Your task to perform on an android device: toggle data saver in the chrome app Image 0: 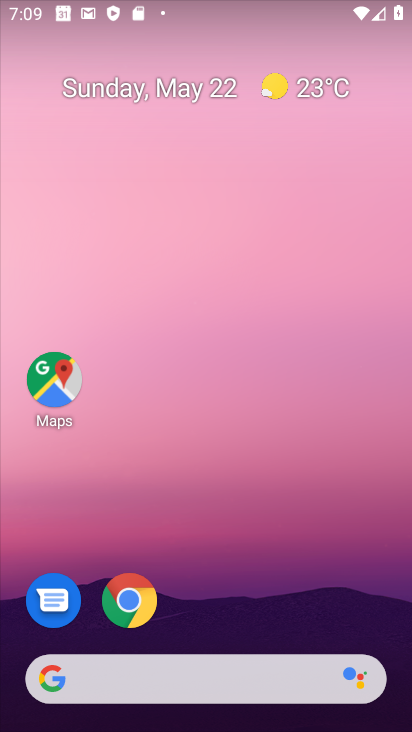
Step 0: drag from (386, 612) to (301, 10)
Your task to perform on an android device: toggle data saver in the chrome app Image 1: 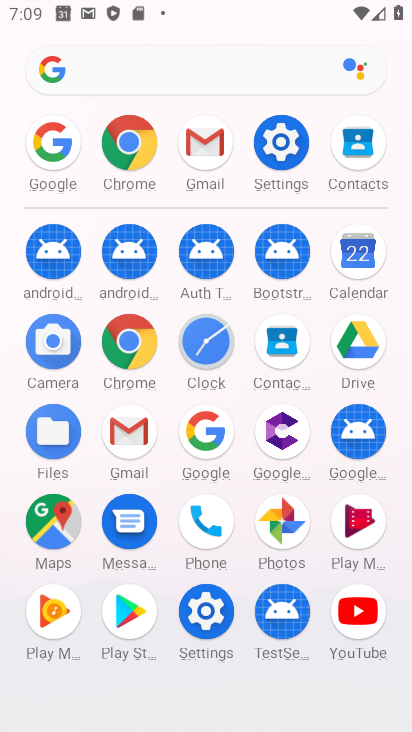
Step 1: click (142, 343)
Your task to perform on an android device: toggle data saver in the chrome app Image 2: 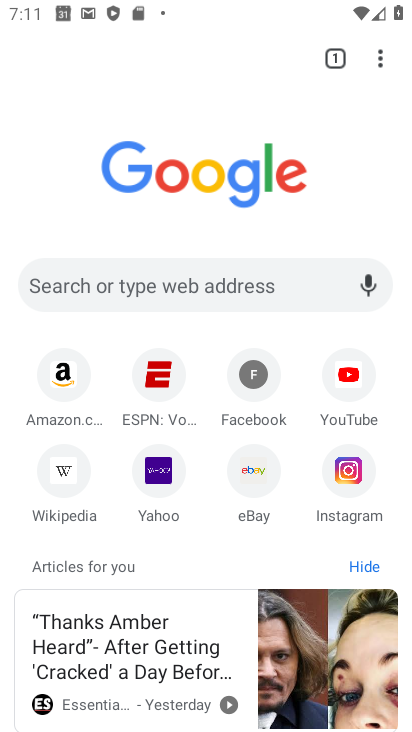
Step 2: click (379, 46)
Your task to perform on an android device: toggle data saver in the chrome app Image 3: 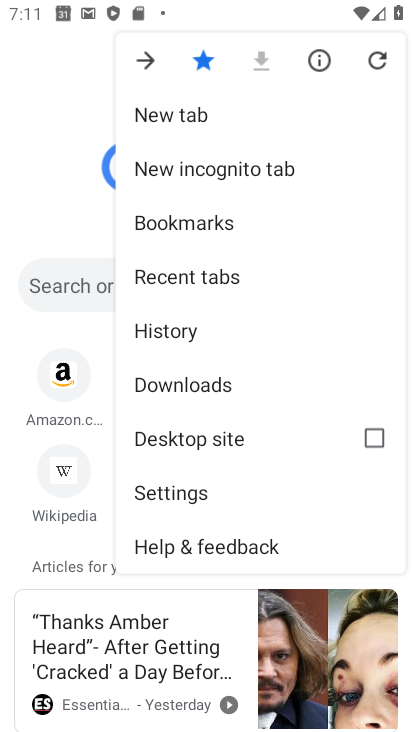
Step 3: click (229, 506)
Your task to perform on an android device: toggle data saver in the chrome app Image 4: 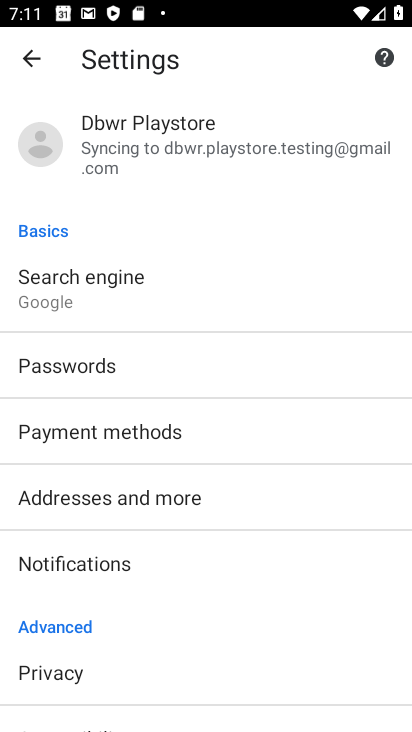
Step 4: drag from (110, 709) to (186, 225)
Your task to perform on an android device: toggle data saver in the chrome app Image 5: 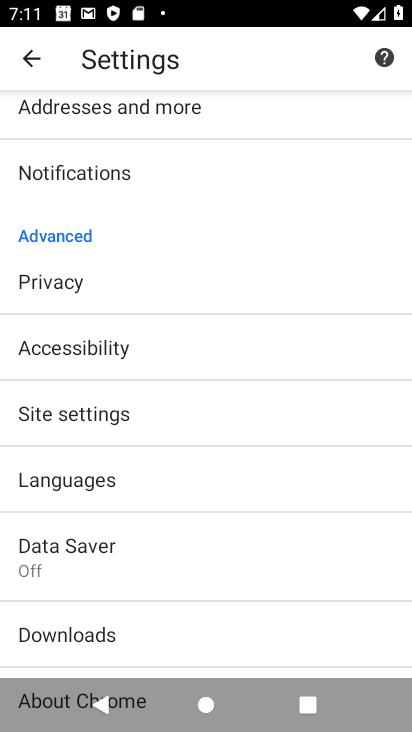
Step 5: click (134, 558)
Your task to perform on an android device: toggle data saver in the chrome app Image 6: 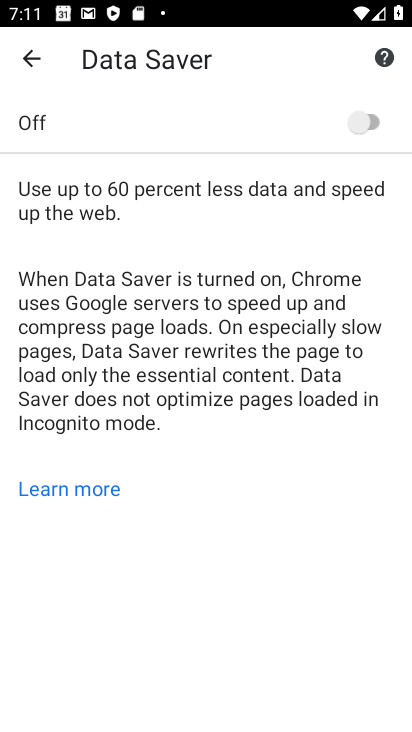
Step 6: click (361, 141)
Your task to perform on an android device: toggle data saver in the chrome app Image 7: 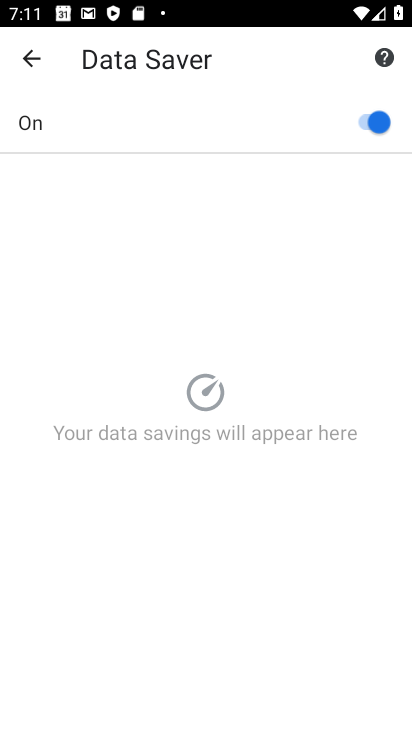
Step 7: task complete